Your task to perform on an android device: Open Yahoo.com Image 0: 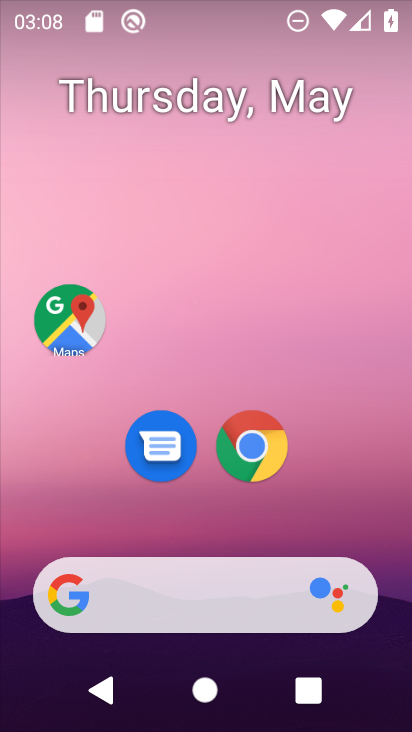
Step 0: click (252, 451)
Your task to perform on an android device: Open Yahoo.com Image 1: 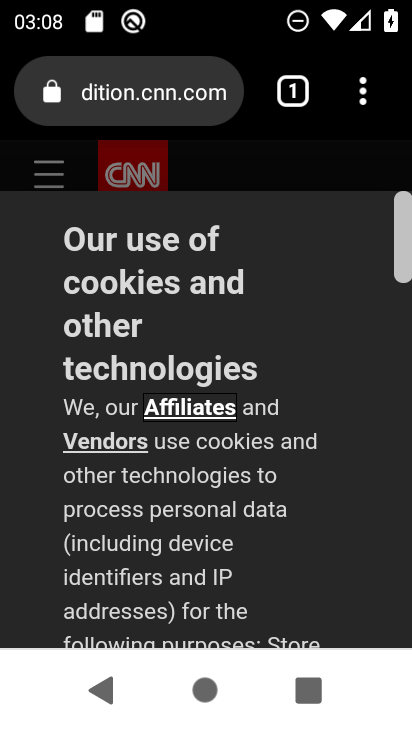
Step 1: click (102, 91)
Your task to perform on an android device: Open Yahoo.com Image 2: 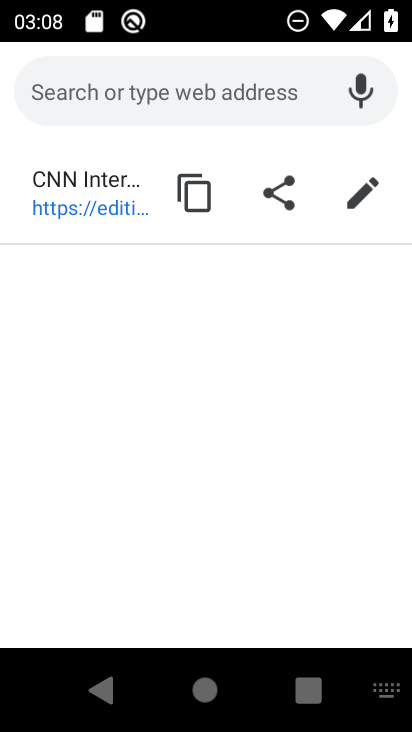
Step 2: type "yahoo.com"
Your task to perform on an android device: Open Yahoo.com Image 3: 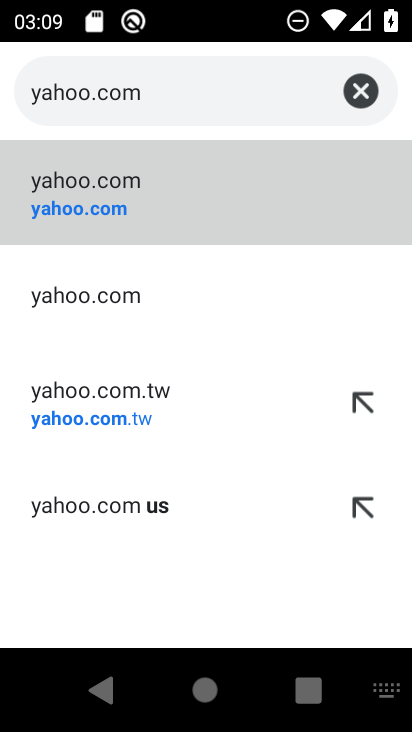
Step 3: click (97, 189)
Your task to perform on an android device: Open Yahoo.com Image 4: 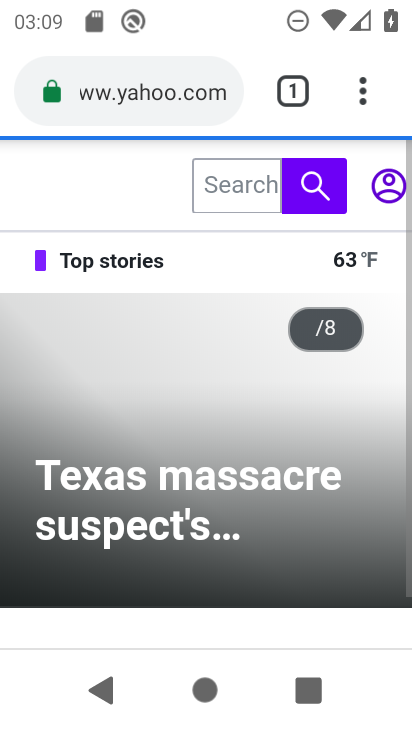
Step 4: task complete